Your task to perform on an android device: toggle pop-ups in chrome Image 0: 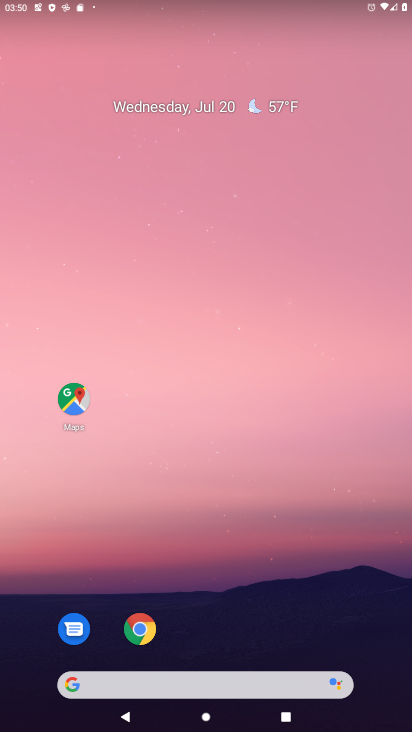
Step 0: click (141, 631)
Your task to perform on an android device: toggle pop-ups in chrome Image 1: 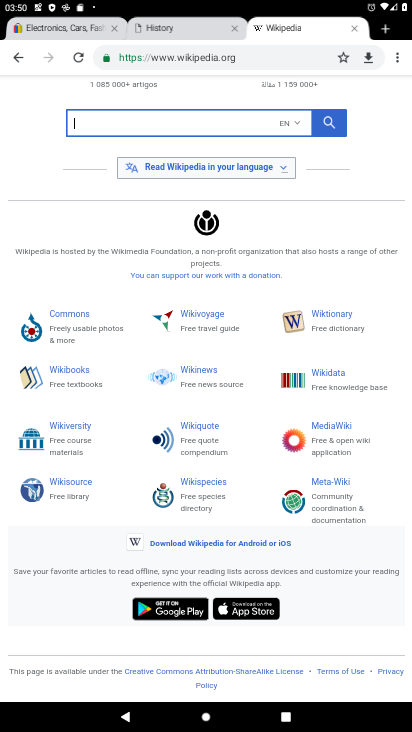
Step 1: click (396, 63)
Your task to perform on an android device: toggle pop-ups in chrome Image 2: 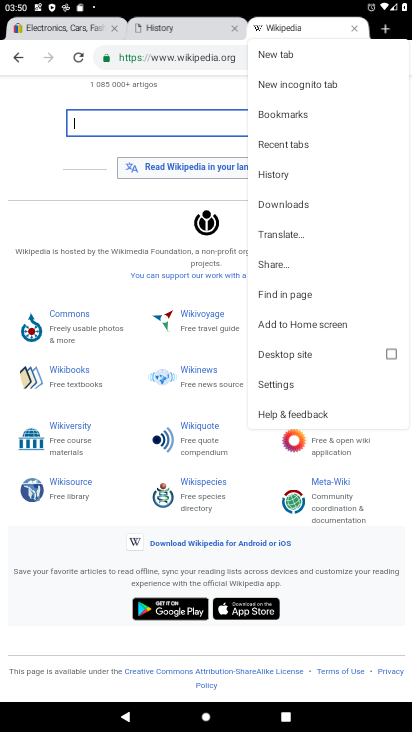
Step 2: click (279, 377)
Your task to perform on an android device: toggle pop-ups in chrome Image 3: 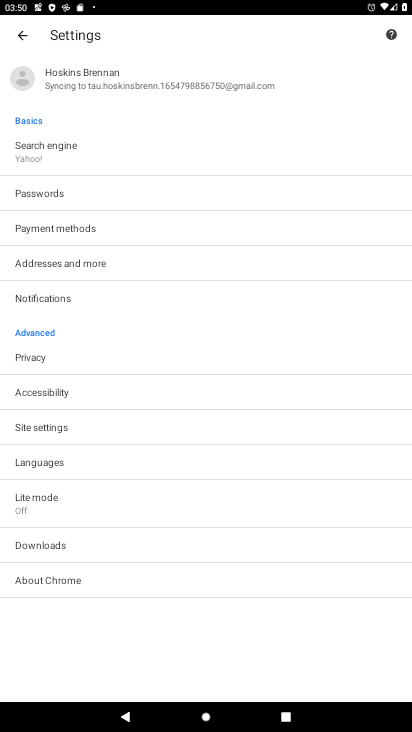
Step 3: click (35, 421)
Your task to perform on an android device: toggle pop-ups in chrome Image 4: 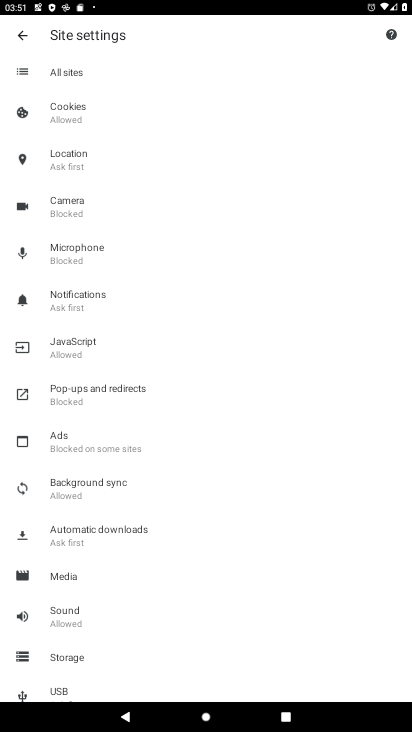
Step 4: click (74, 394)
Your task to perform on an android device: toggle pop-ups in chrome Image 5: 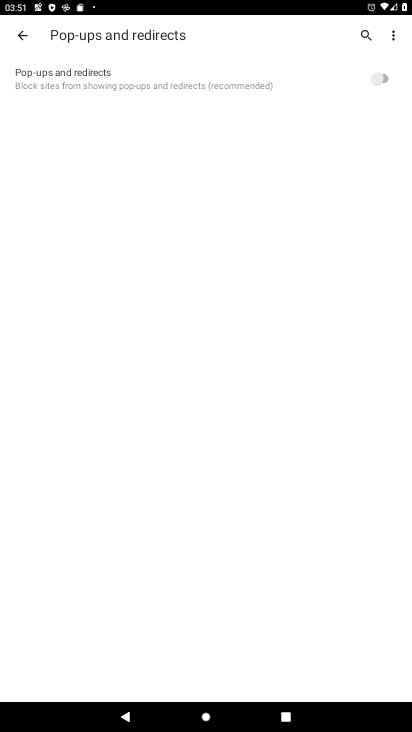
Step 5: click (381, 81)
Your task to perform on an android device: toggle pop-ups in chrome Image 6: 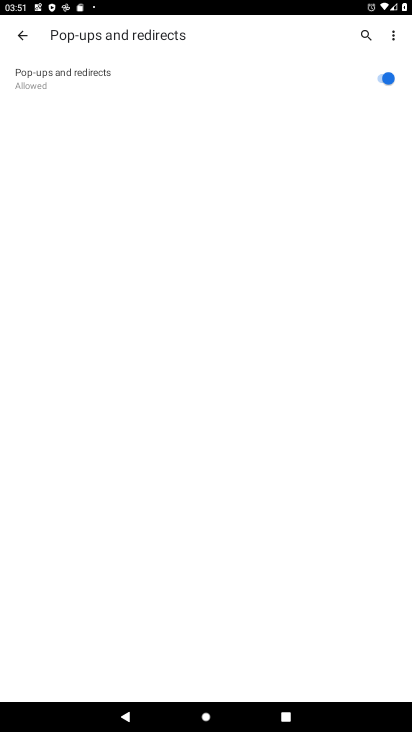
Step 6: task complete